Your task to perform on an android device: Go to display settings Image 0: 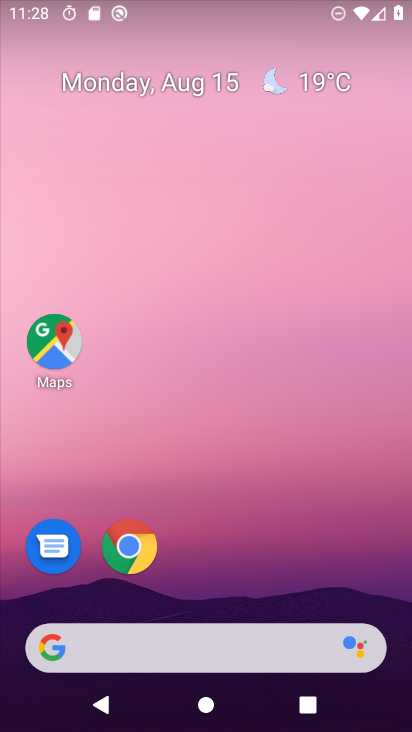
Step 0: drag from (235, 613) to (212, 66)
Your task to perform on an android device: Go to display settings Image 1: 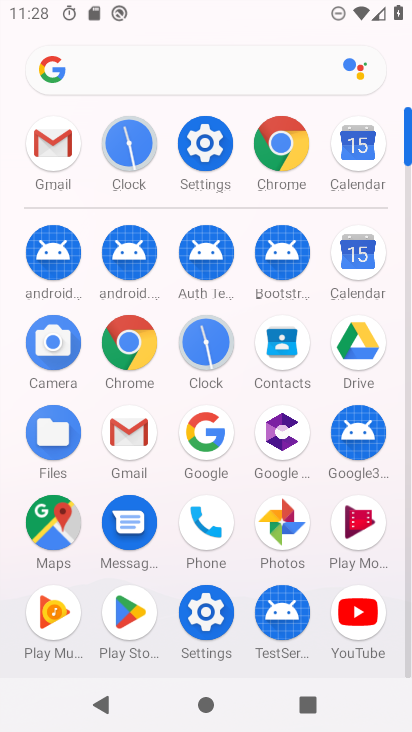
Step 1: click (199, 143)
Your task to perform on an android device: Go to display settings Image 2: 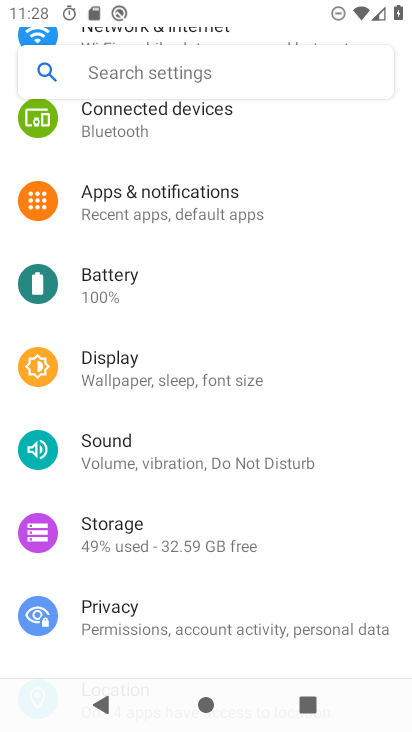
Step 2: click (110, 371)
Your task to perform on an android device: Go to display settings Image 3: 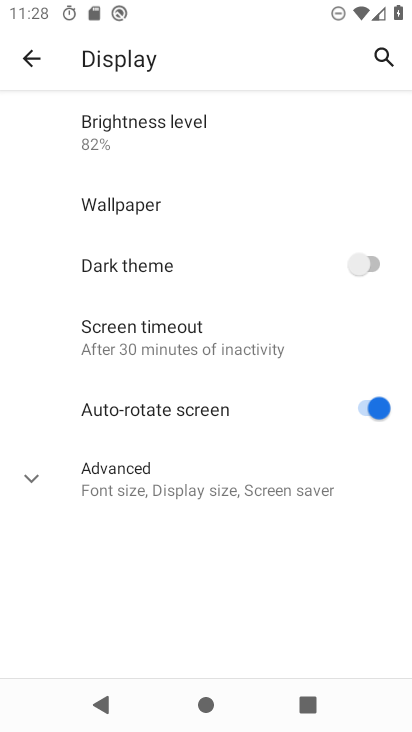
Step 3: task complete